Your task to perform on an android device: Do I have any events this weekend? Image 0: 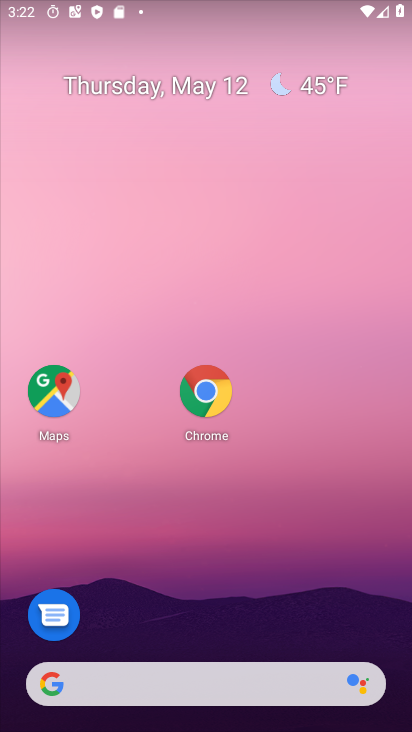
Step 0: drag from (207, 559) to (253, 121)
Your task to perform on an android device: Do I have any events this weekend? Image 1: 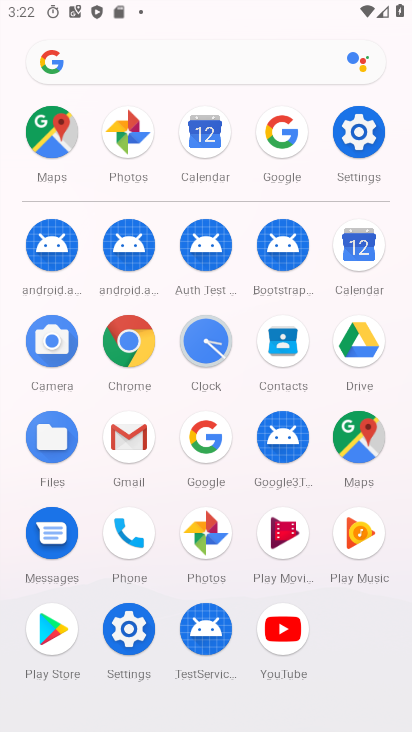
Step 1: click (356, 245)
Your task to perform on an android device: Do I have any events this weekend? Image 2: 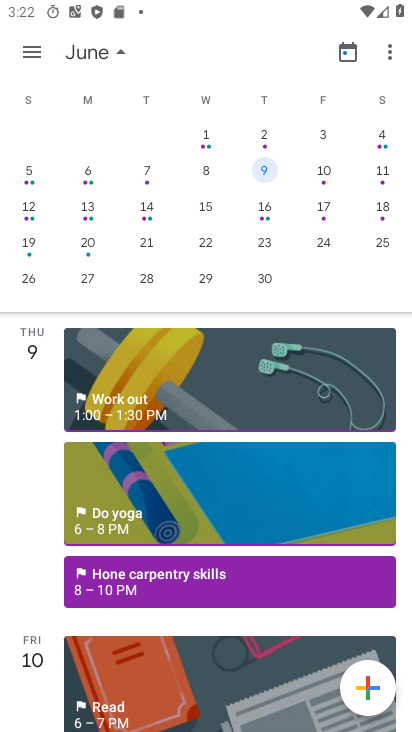
Step 2: drag from (93, 296) to (408, 264)
Your task to perform on an android device: Do I have any events this weekend? Image 3: 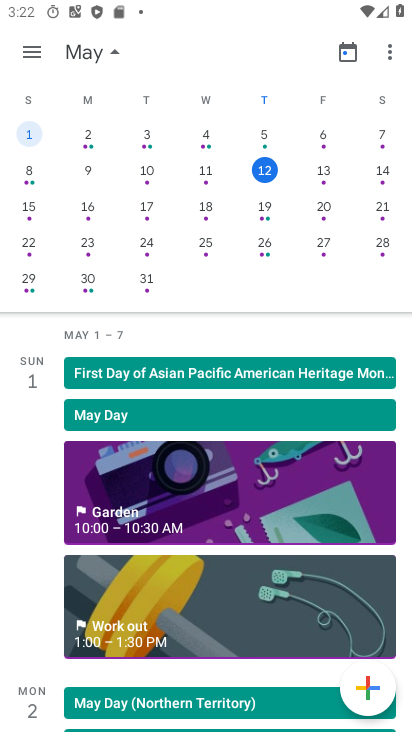
Step 3: click (273, 201)
Your task to perform on an android device: Do I have any events this weekend? Image 4: 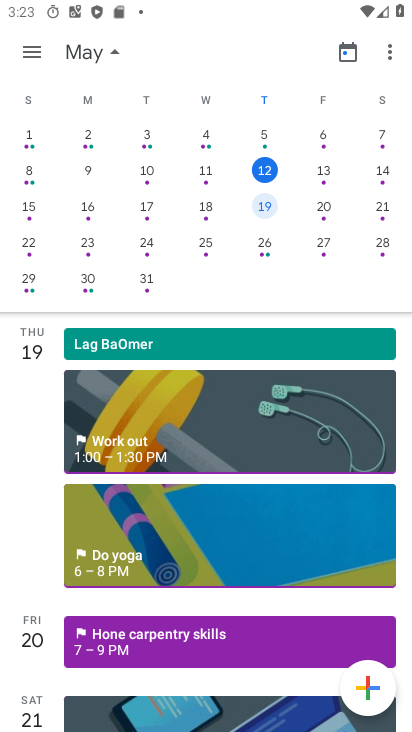
Step 4: task complete